Your task to perform on an android device: set the stopwatch Image 0: 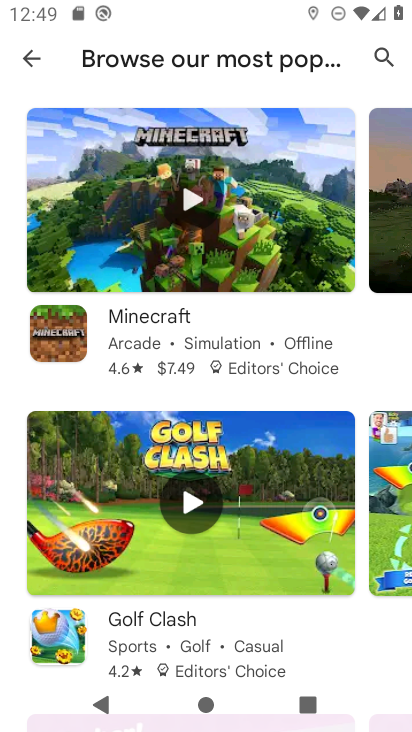
Step 0: press home button
Your task to perform on an android device: set the stopwatch Image 1: 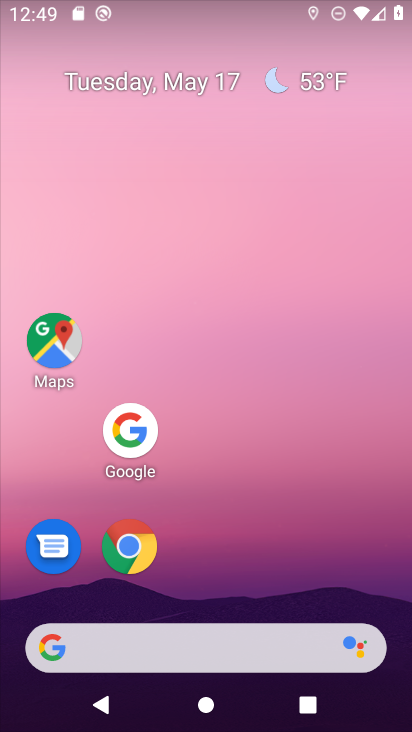
Step 1: drag from (246, 550) to (243, 56)
Your task to perform on an android device: set the stopwatch Image 2: 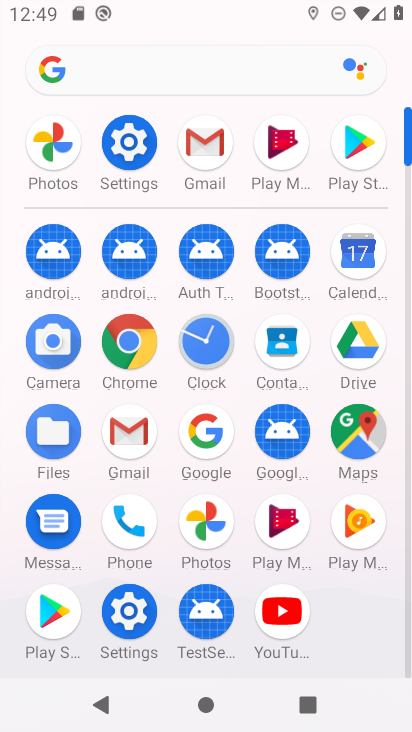
Step 2: click (207, 336)
Your task to perform on an android device: set the stopwatch Image 3: 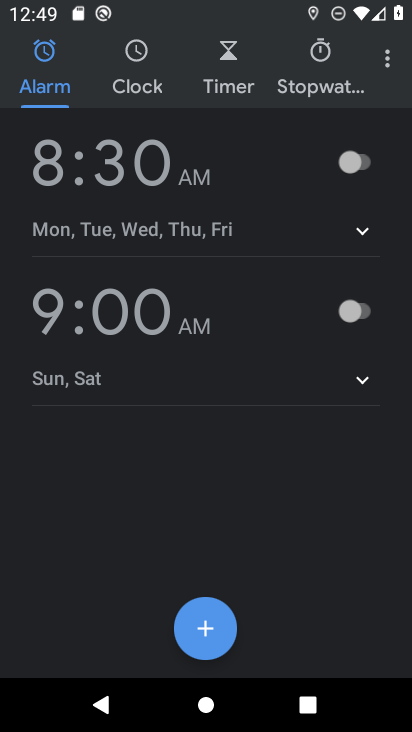
Step 3: click (330, 73)
Your task to perform on an android device: set the stopwatch Image 4: 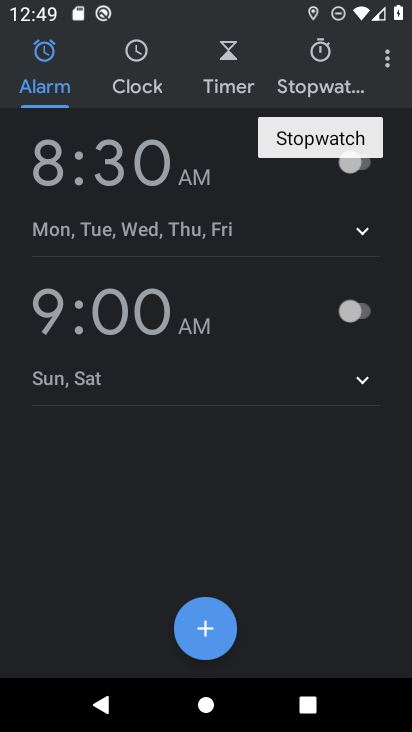
Step 4: click (305, 75)
Your task to perform on an android device: set the stopwatch Image 5: 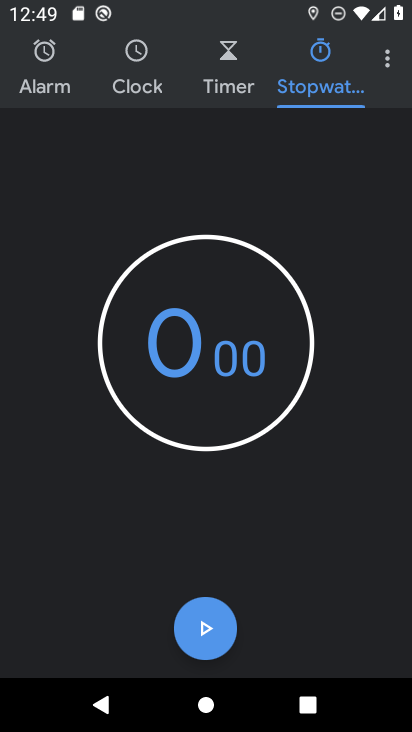
Step 5: click (211, 634)
Your task to perform on an android device: set the stopwatch Image 6: 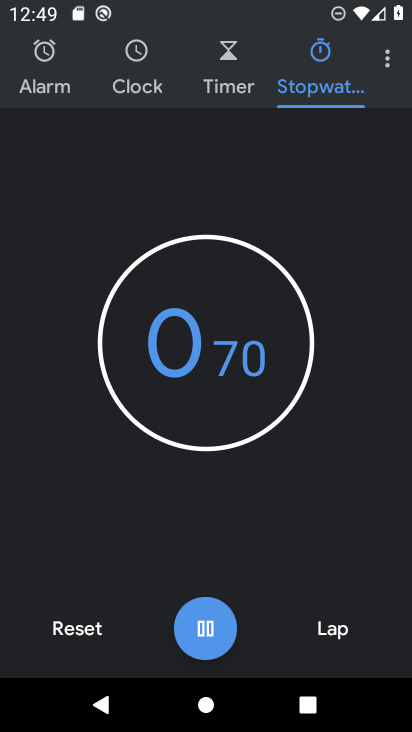
Step 6: click (211, 631)
Your task to perform on an android device: set the stopwatch Image 7: 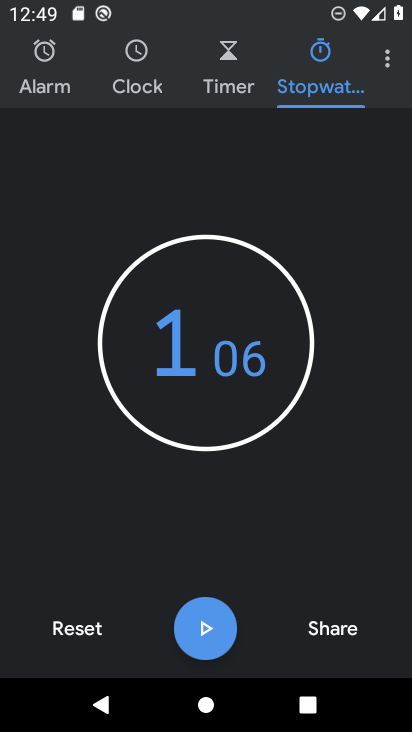
Step 7: task complete